Your task to perform on an android device: Go to settings Image 0: 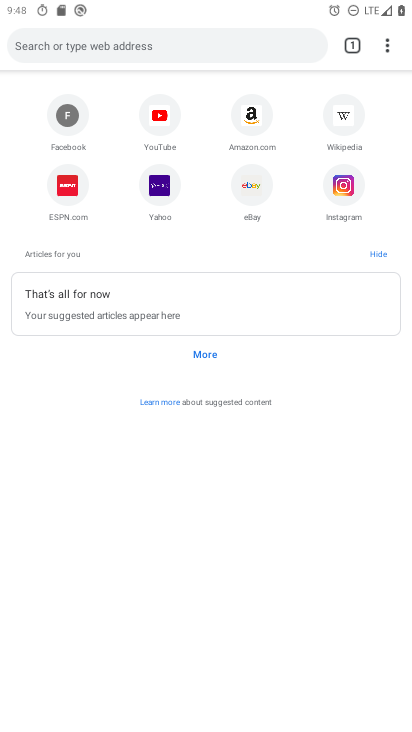
Step 0: press home button
Your task to perform on an android device: Go to settings Image 1: 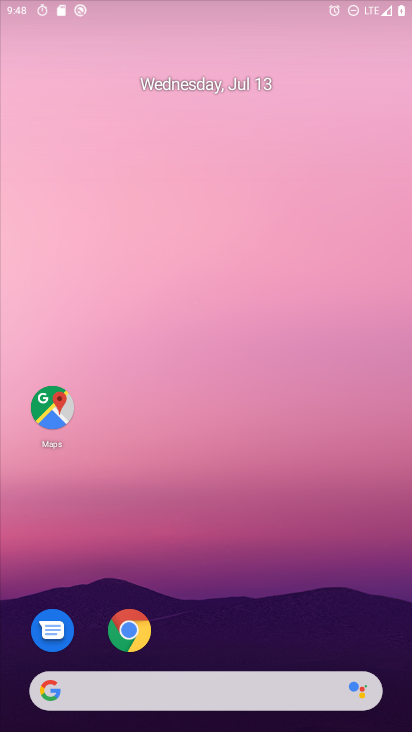
Step 1: drag from (390, 686) to (177, 731)
Your task to perform on an android device: Go to settings Image 2: 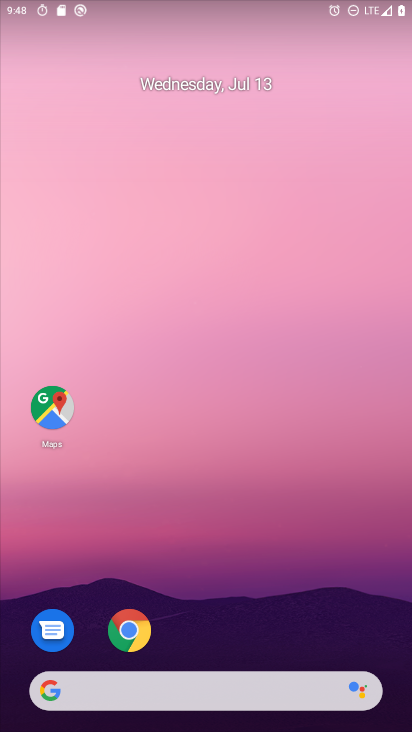
Step 2: click (202, 666)
Your task to perform on an android device: Go to settings Image 3: 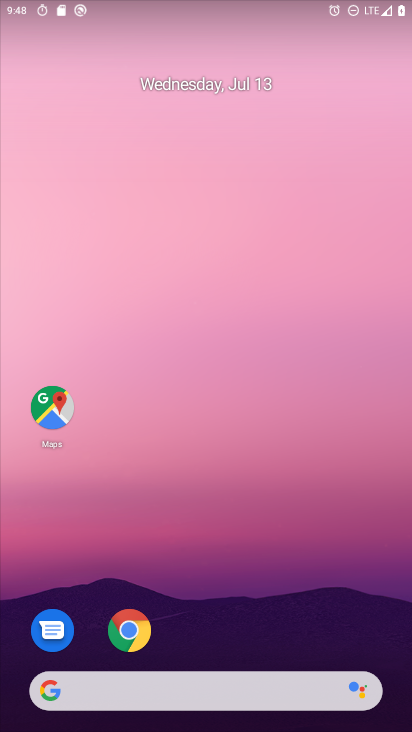
Step 3: drag from (354, 645) to (197, 0)
Your task to perform on an android device: Go to settings Image 4: 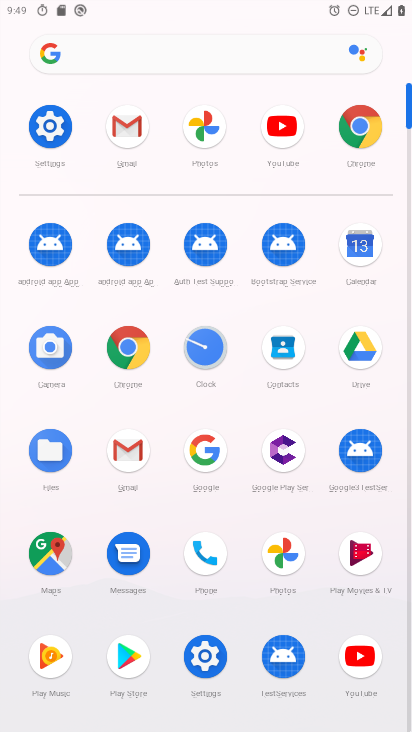
Step 4: click (208, 651)
Your task to perform on an android device: Go to settings Image 5: 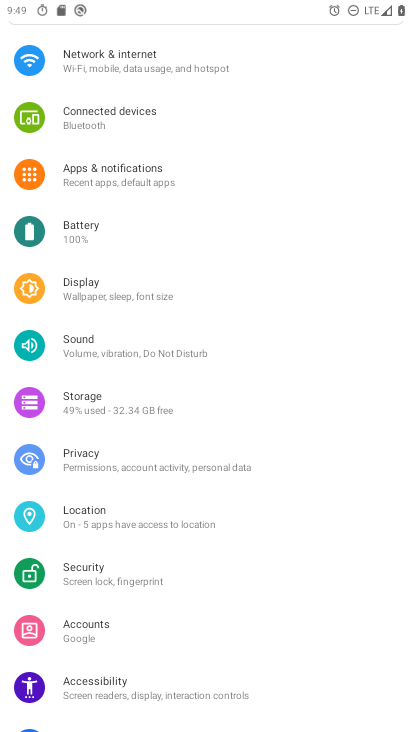
Step 5: task complete